Your task to perform on an android device: turn on location history Image 0: 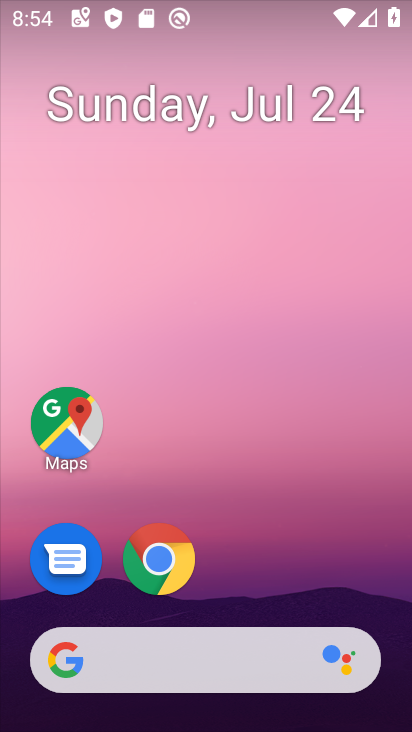
Step 0: drag from (207, 570) to (263, 18)
Your task to perform on an android device: turn on location history Image 1: 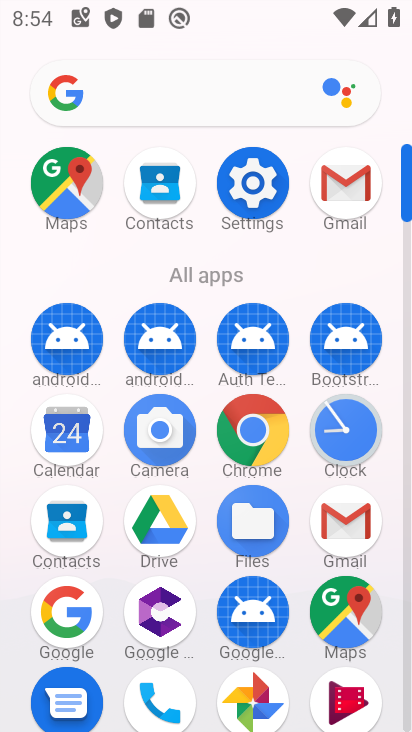
Step 1: click (256, 199)
Your task to perform on an android device: turn on location history Image 2: 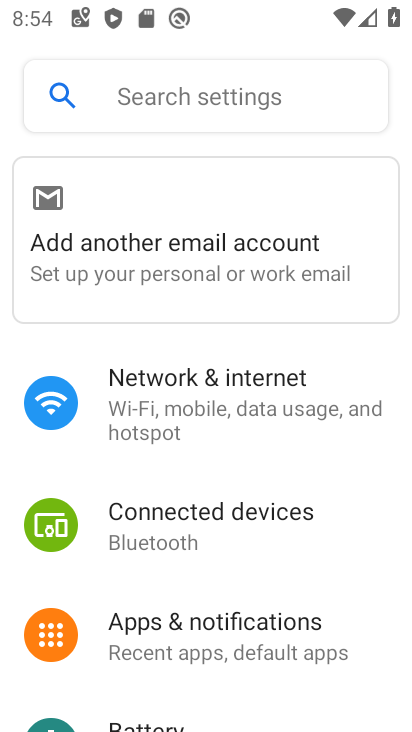
Step 2: drag from (177, 659) to (245, 122)
Your task to perform on an android device: turn on location history Image 3: 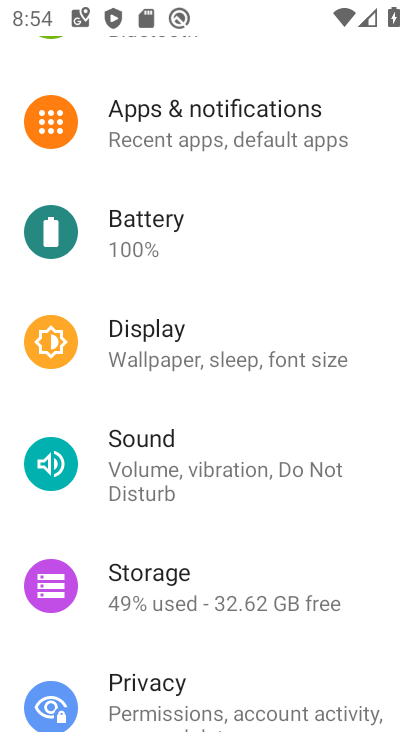
Step 3: drag from (160, 683) to (260, 185)
Your task to perform on an android device: turn on location history Image 4: 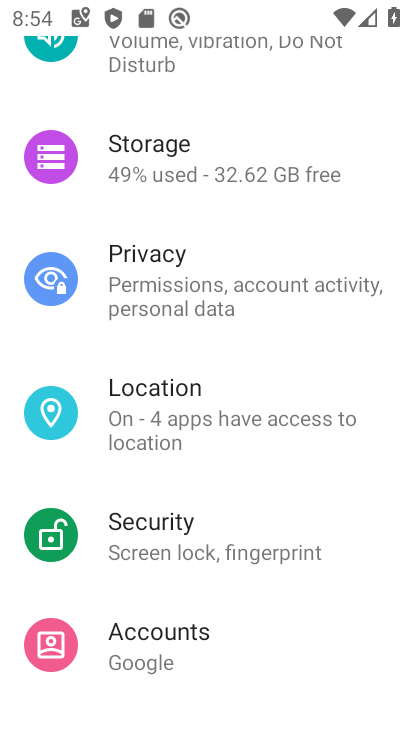
Step 4: click (111, 408)
Your task to perform on an android device: turn on location history Image 5: 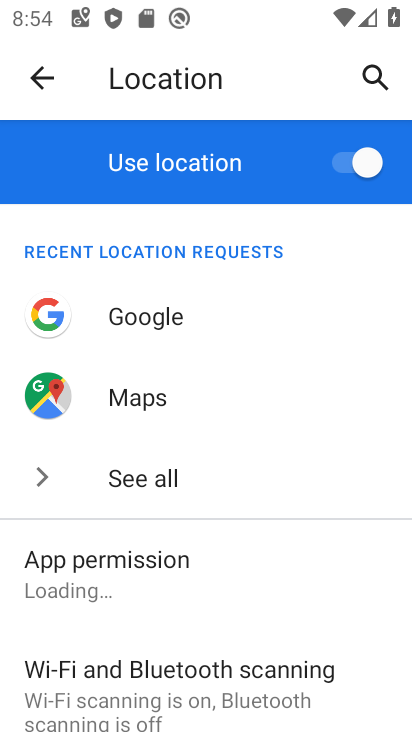
Step 5: drag from (139, 643) to (212, 232)
Your task to perform on an android device: turn on location history Image 6: 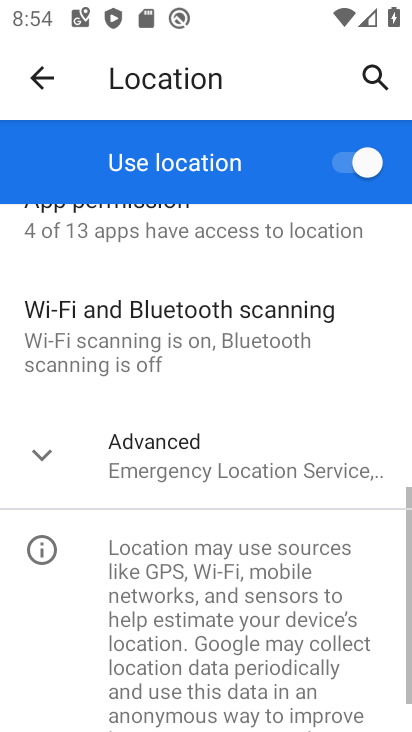
Step 6: click (175, 464)
Your task to perform on an android device: turn on location history Image 7: 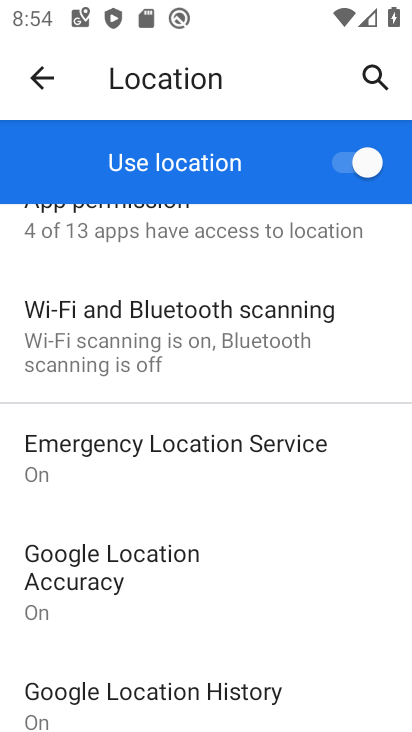
Step 7: click (161, 685)
Your task to perform on an android device: turn on location history Image 8: 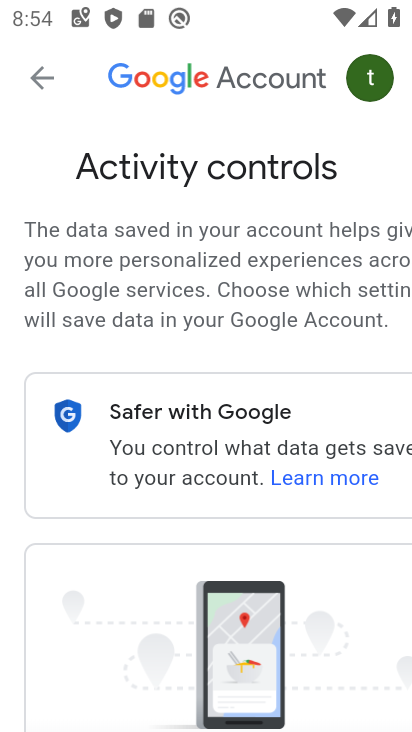
Step 8: task complete